Your task to perform on an android device: turn on improve location accuracy Image 0: 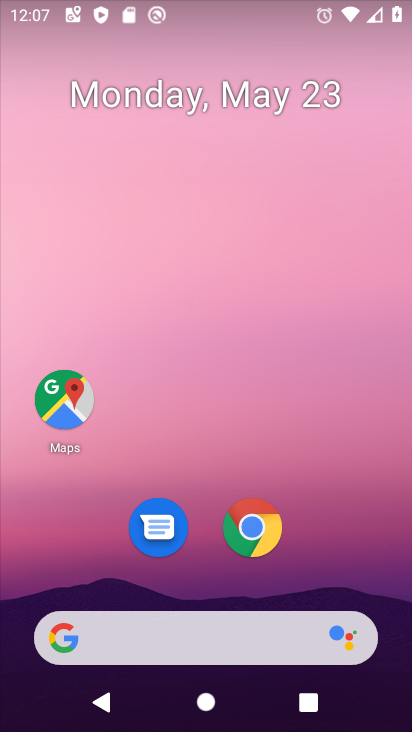
Step 0: drag from (348, 572) to (286, 115)
Your task to perform on an android device: turn on improve location accuracy Image 1: 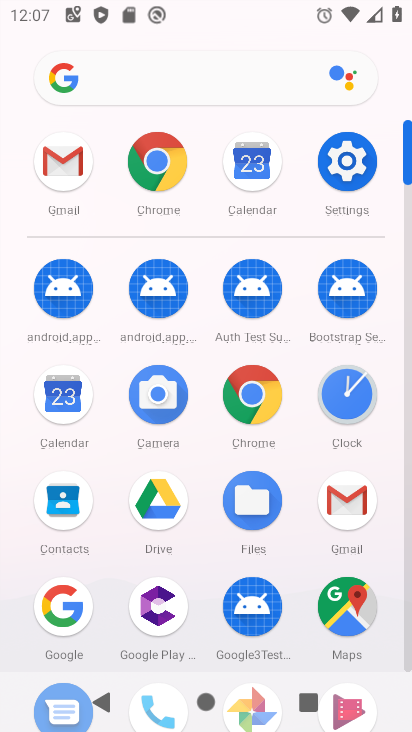
Step 1: click (350, 172)
Your task to perform on an android device: turn on improve location accuracy Image 2: 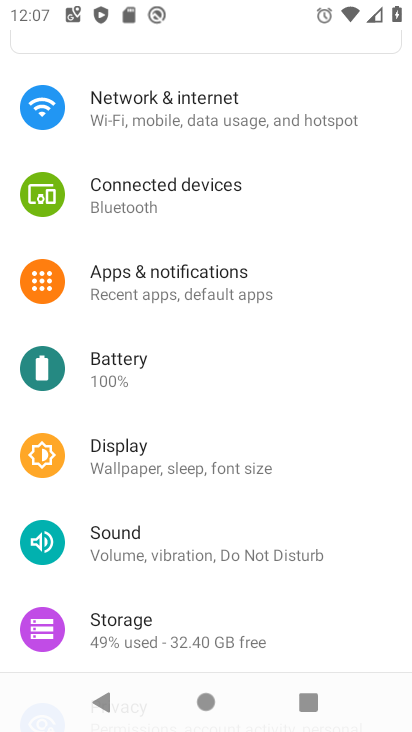
Step 2: drag from (172, 550) to (196, 241)
Your task to perform on an android device: turn on improve location accuracy Image 3: 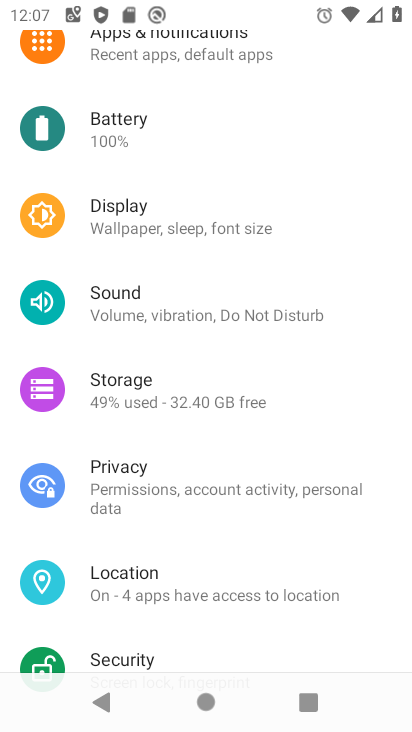
Step 3: click (168, 555)
Your task to perform on an android device: turn on improve location accuracy Image 4: 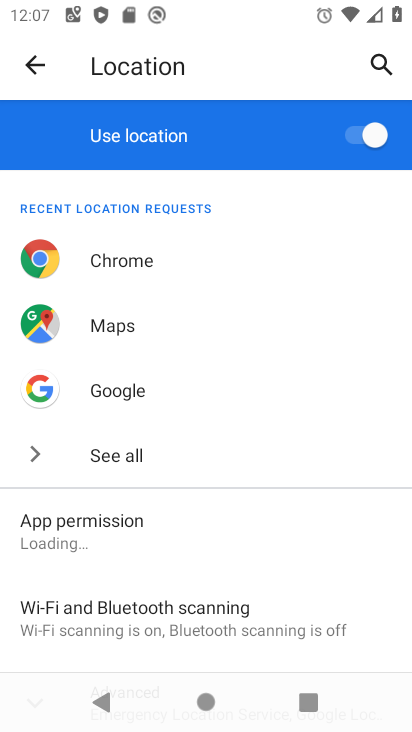
Step 4: click (229, 436)
Your task to perform on an android device: turn on improve location accuracy Image 5: 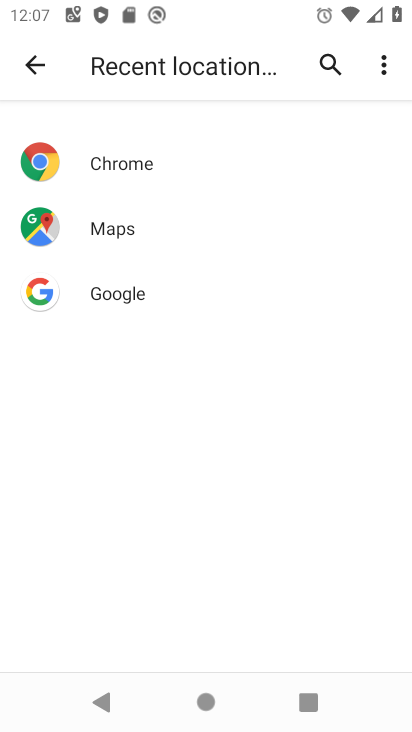
Step 5: click (45, 65)
Your task to perform on an android device: turn on improve location accuracy Image 6: 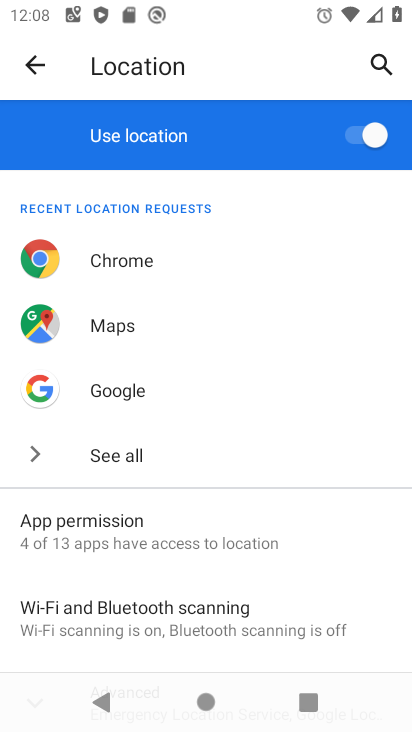
Step 6: drag from (231, 543) to (235, 329)
Your task to perform on an android device: turn on improve location accuracy Image 7: 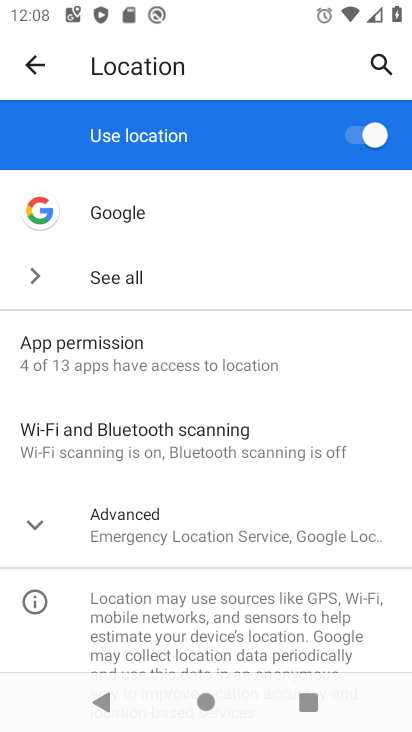
Step 7: click (229, 495)
Your task to perform on an android device: turn on improve location accuracy Image 8: 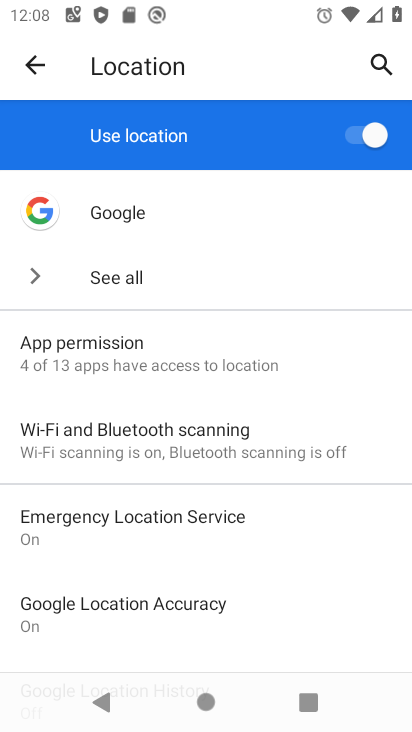
Step 8: task complete